Your task to perform on an android device: change alarm snooze length Image 0: 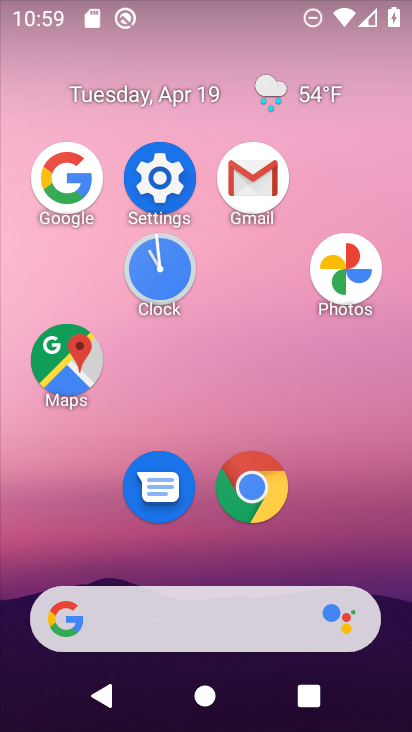
Step 0: click (151, 262)
Your task to perform on an android device: change alarm snooze length Image 1: 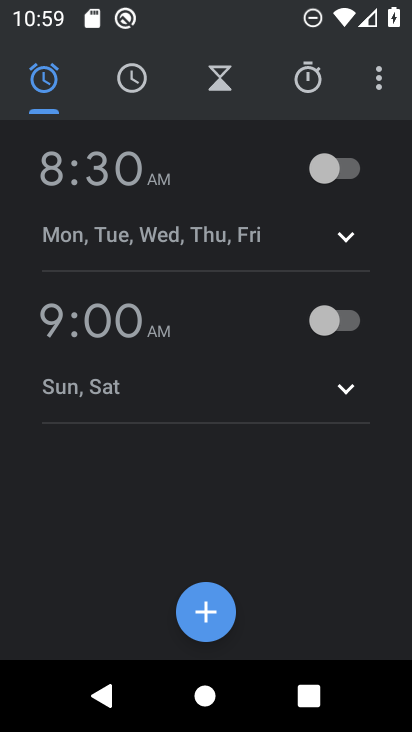
Step 1: click (389, 99)
Your task to perform on an android device: change alarm snooze length Image 2: 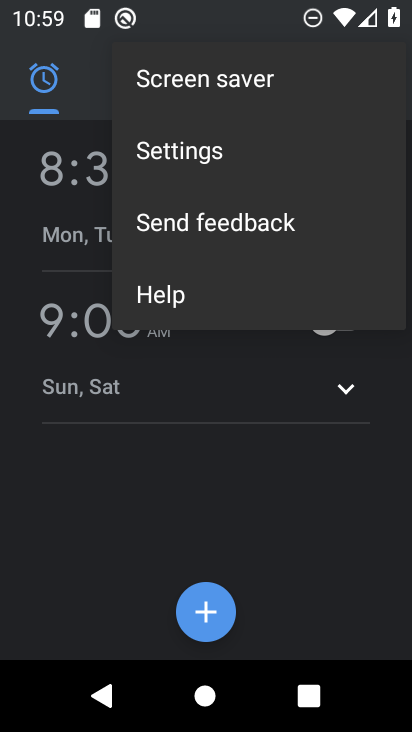
Step 2: click (247, 145)
Your task to perform on an android device: change alarm snooze length Image 3: 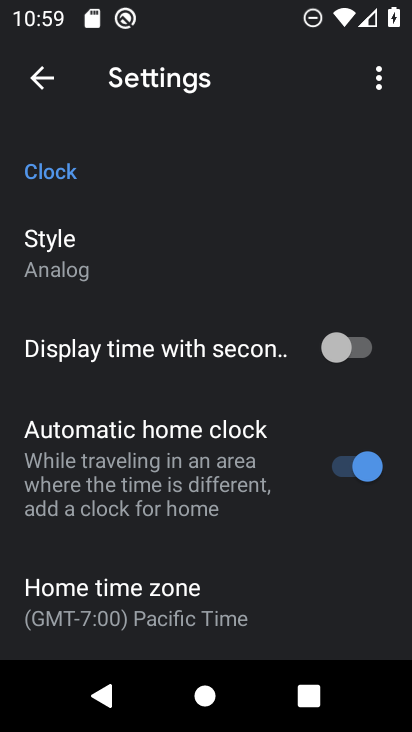
Step 3: drag from (172, 501) to (199, 127)
Your task to perform on an android device: change alarm snooze length Image 4: 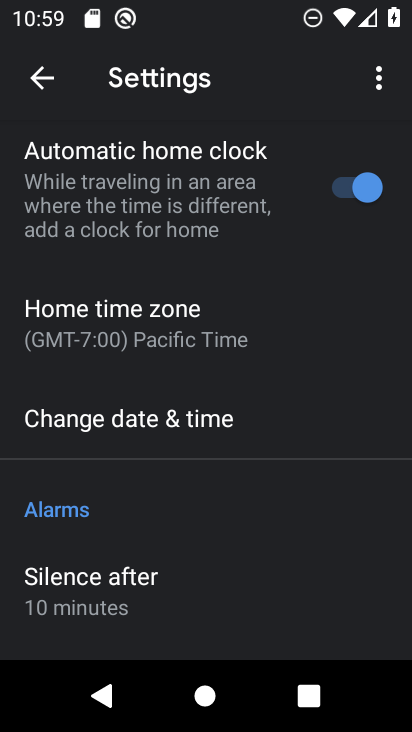
Step 4: drag from (239, 526) to (260, 200)
Your task to perform on an android device: change alarm snooze length Image 5: 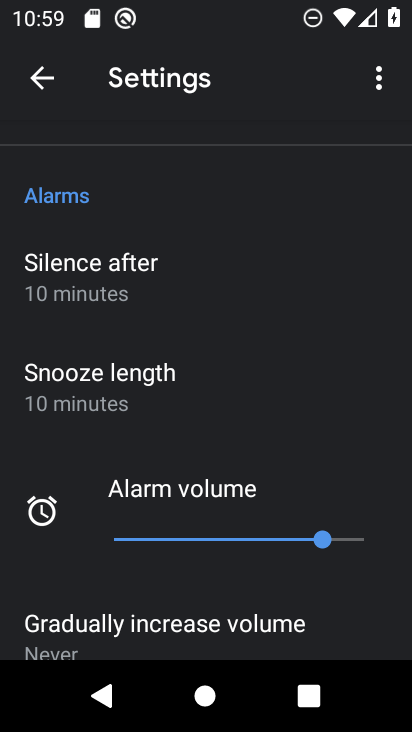
Step 5: click (200, 378)
Your task to perform on an android device: change alarm snooze length Image 6: 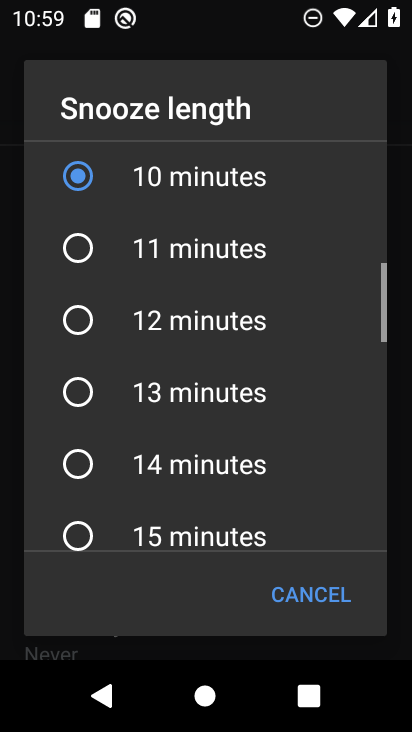
Step 6: click (83, 256)
Your task to perform on an android device: change alarm snooze length Image 7: 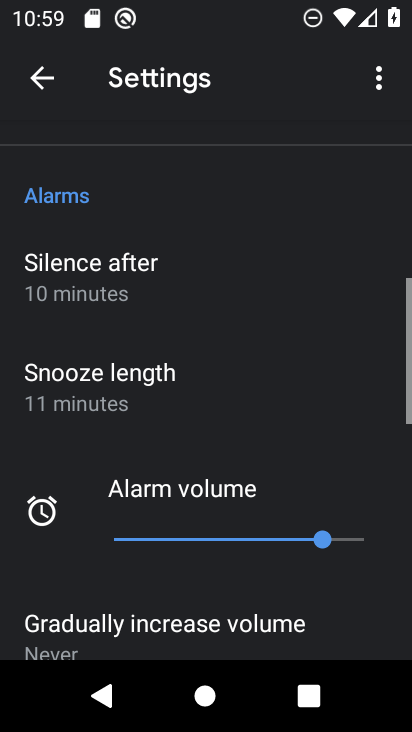
Step 7: task complete